Your task to perform on an android device: turn off location history Image 0: 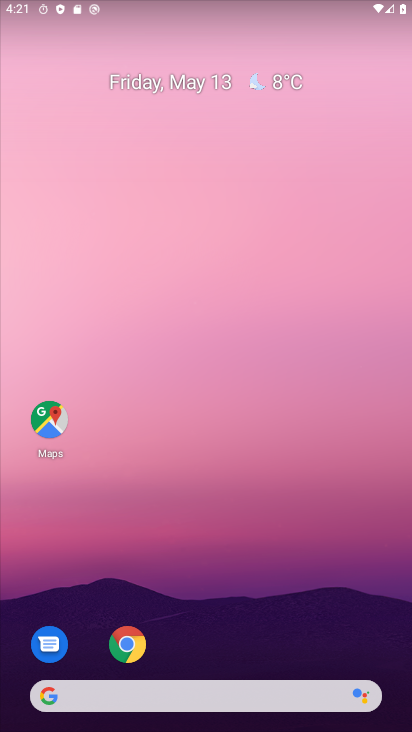
Step 0: drag from (204, 586) to (224, 112)
Your task to perform on an android device: turn off location history Image 1: 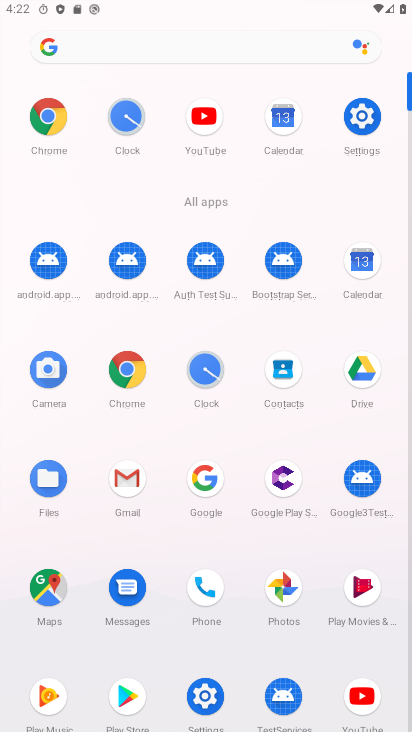
Step 1: click (359, 114)
Your task to perform on an android device: turn off location history Image 2: 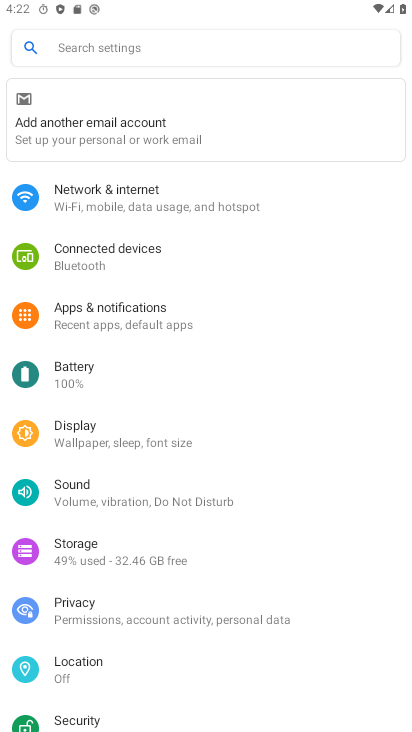
Step 2: drag from (141, 646) to (203, 310)
Your task to perform on an android device: turn off location history Image 3: 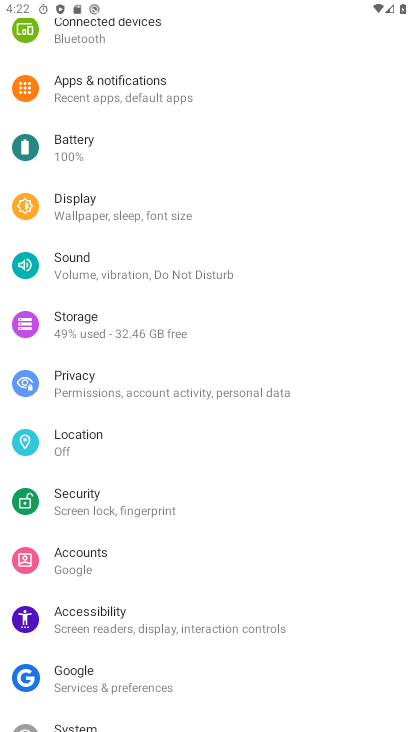
Step 3: click (139, 441)
Your task to perform on an android device: turn off location history Image 4: 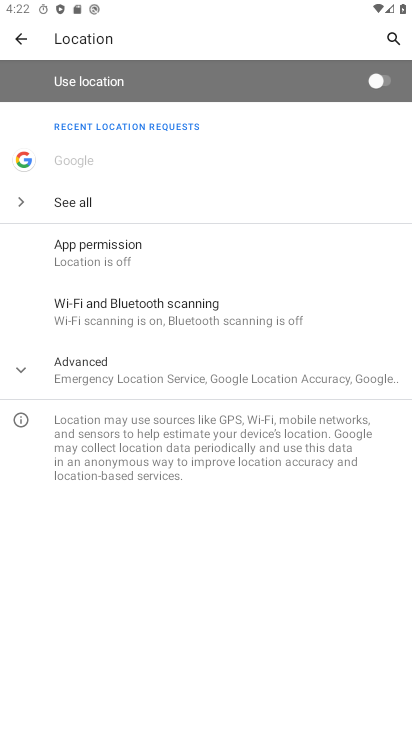
Step 4: click (158, 382)
Your task to perform on an android device: turn off location history Image 5: 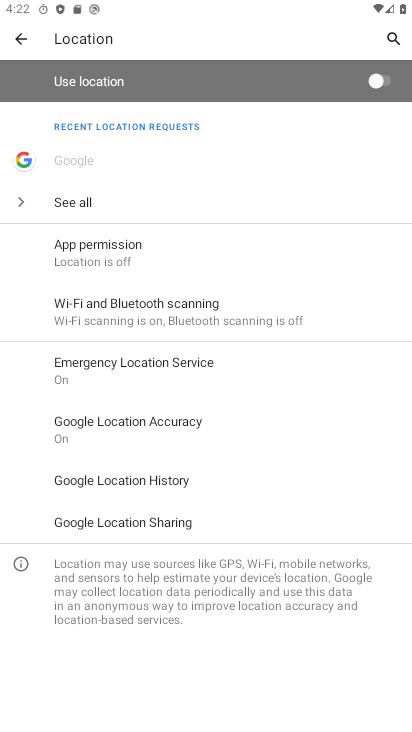
Step 5: click (183, 471)
Your task to perform on an android device: turn off location history Image 6: 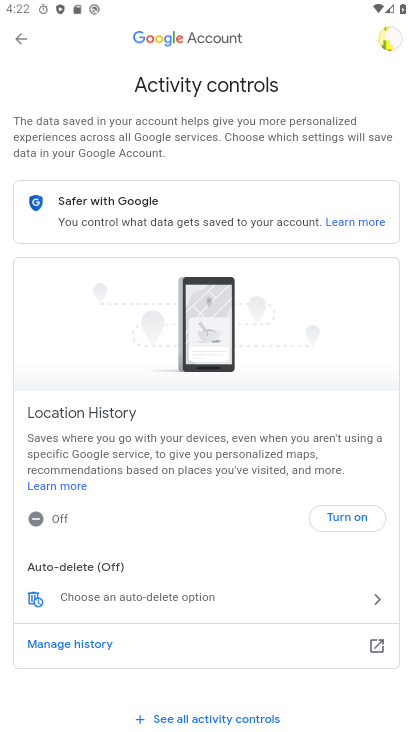
Step 6: task complete